Your task to perform on an android device: toggle translation in the chrome app Image 0: 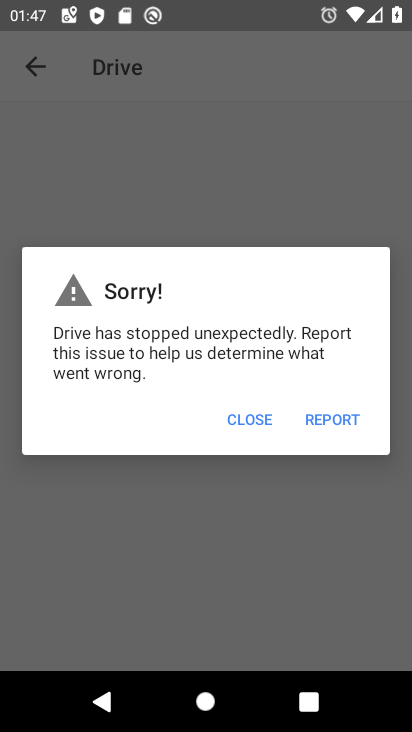
Step 0: press home button
Your task to perform on an android device: toggle translation in the chrome app Image 1: 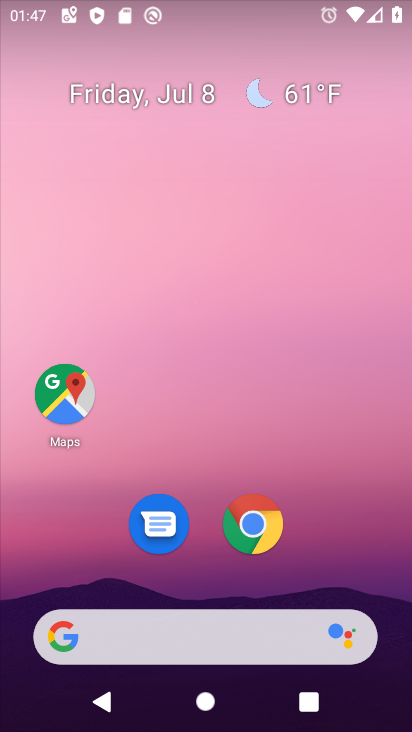
Step 1: click (263, 525)
Your task to perform on an android device: toggle translation in the chrome app Image 2: 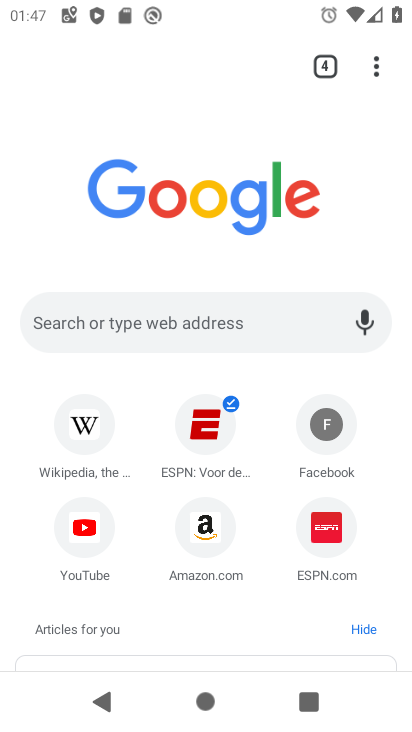
Step 2: click (372, 68)
Your task to perform on an android device: toggle translation in the chrome app Image 3: 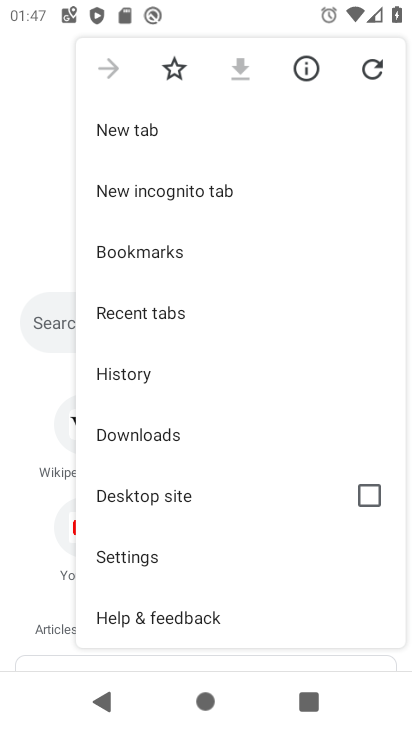
Step 3: click (155, 553)
Your task to perform on an android device: toggle translation in the chrome app Image 4: 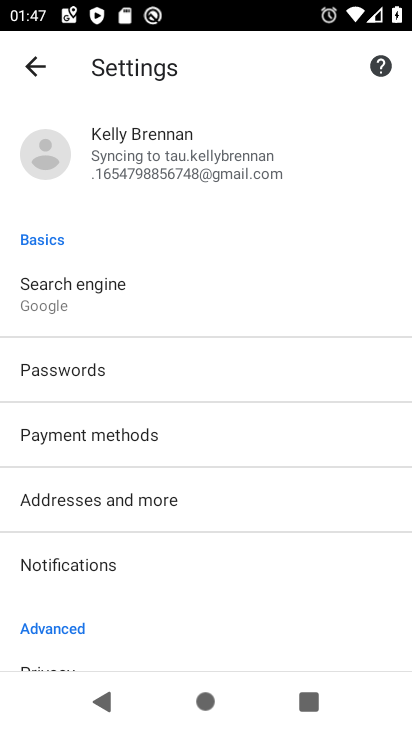
Step 4: drag from (264, 628) to (311, 128)
Your task to perform on an android device: toggle translation in the chrome app Image 5: 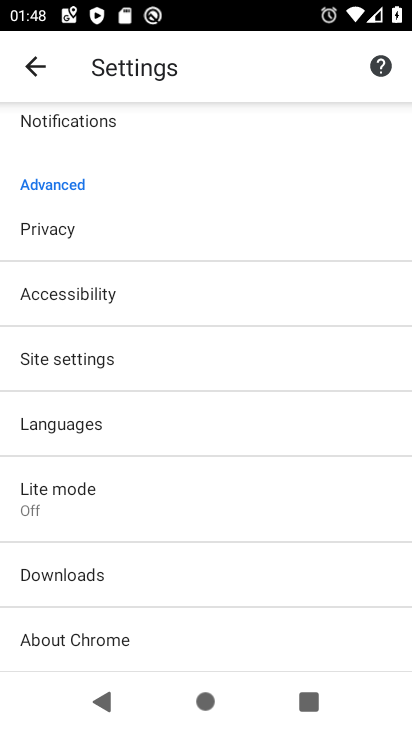
Step 5: click (89, 424)
Your task to perform on an android device: toggle translation in the chrome app Image 6: 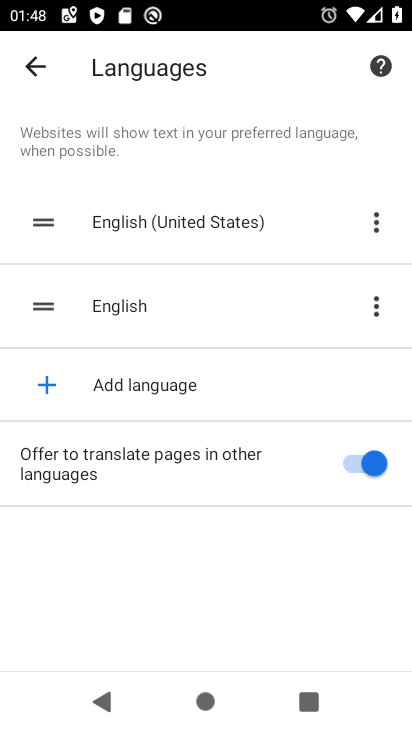
Step 6: click (353, 451)
Your task to perform on an android device: toggle translation in the chrome app Image 7: 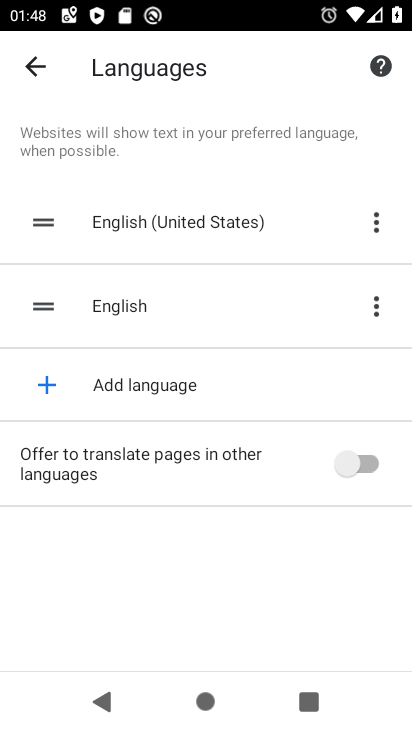
Step 7: task complete